Your task to perform on an android device: snooze an email in the gmail app Image 0: 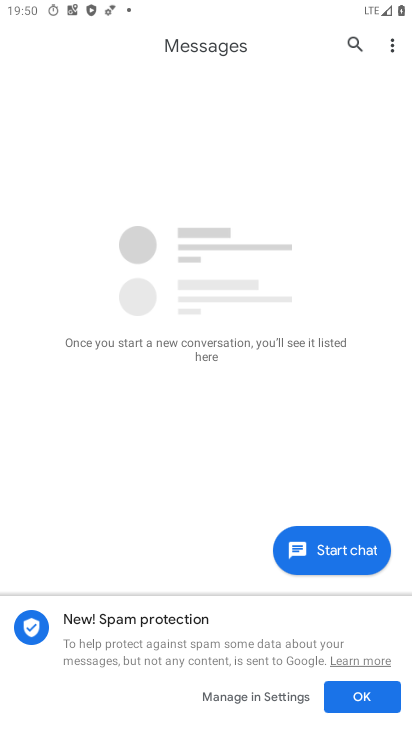
Step 0: press home button
Your task to perform on an android device: snooze an email in the gmail app Image 1: 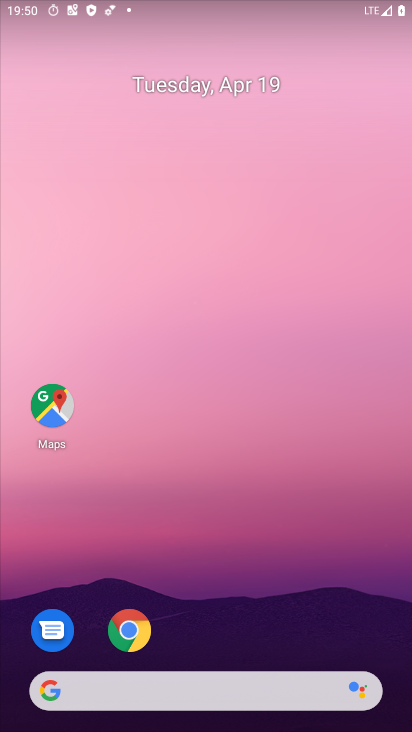
Step 1: drag from (190, 661) to (166, 94)
Your task to perform on an android device: snooze an email in the gmail app Image 2: 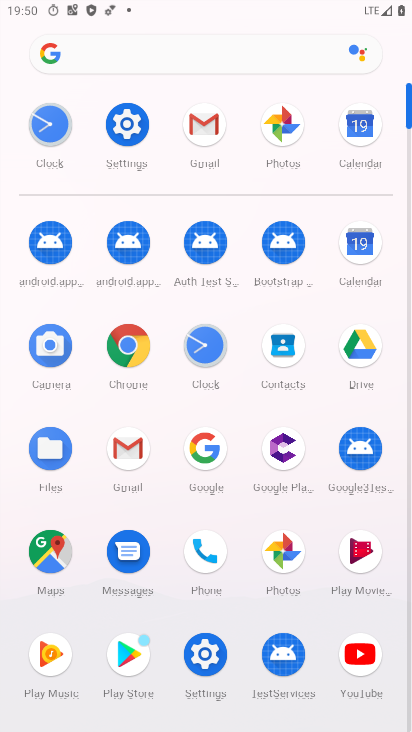
Step 2: click (117, 448)
Your task to perform on an android device: snooze an email in the gmail app Image 3: 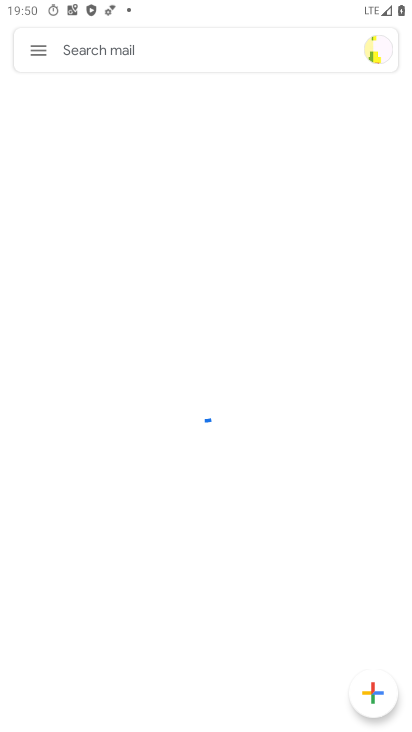
Step 3: click (44, 50)
Your task to perform on an android device: snooze an email in the gmail app Image 4: 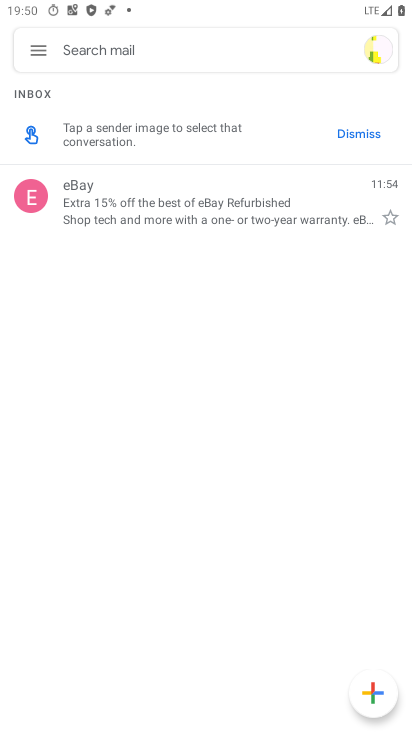
Step 4: click (38, 53)
Your task to perform on an android device: snooze an email in the gmail app Image 5: 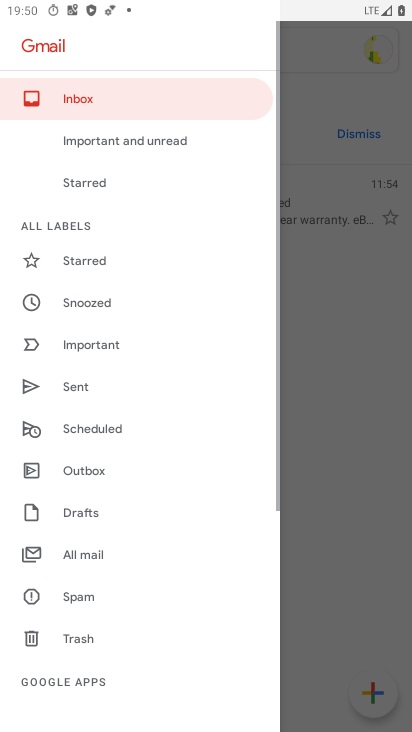
Step 5: click (345, 209)
Your task to perform on an android device: snooze an email in the gmail app Image 6: 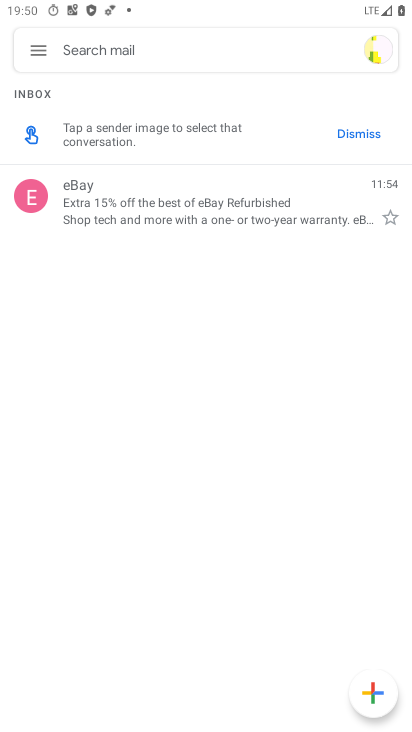
Step 6: click (345, 209)
Your task to perform on an android device: snooze an email in the gmail app Image 7: 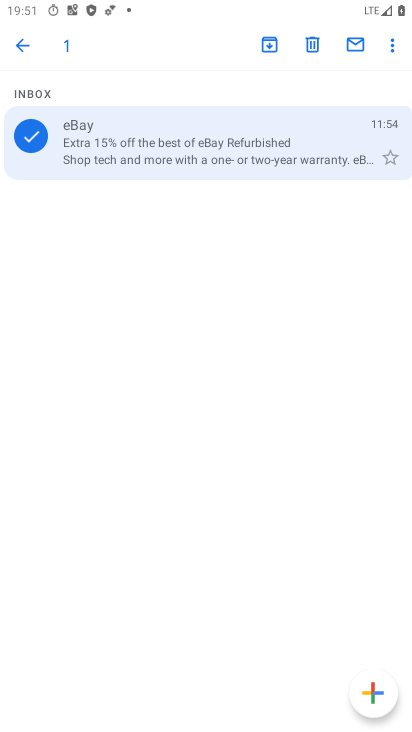
Step 7: click (396, 38)
Your task to perform on an android device: snooze an email in the gmail app Image 8: 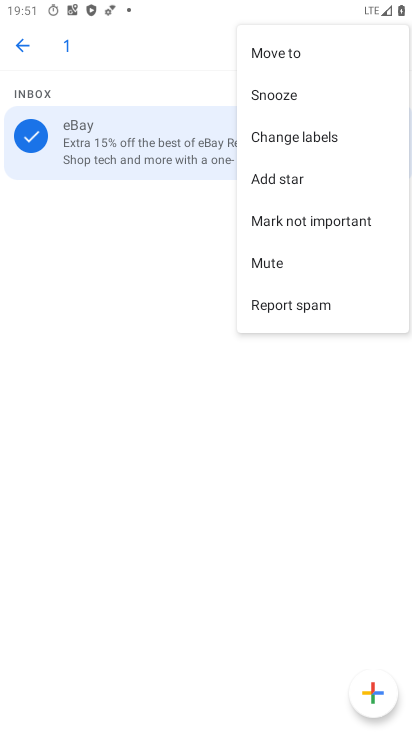
Step 8: click (283, 95)
Your task to perform on an android device: snooze an email in the gmail app Image 9: 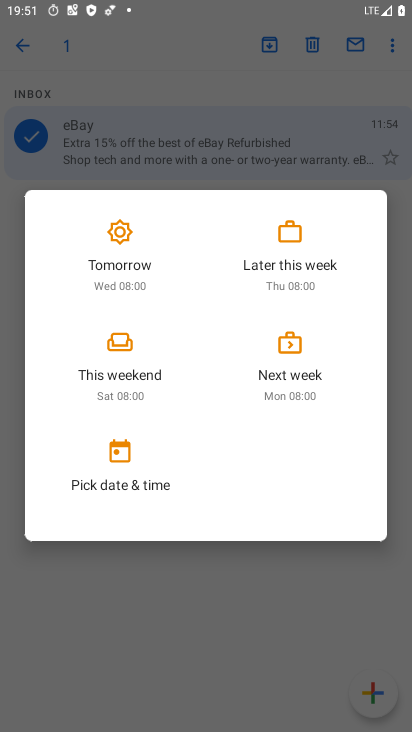
Step 9: click (110, 449)
Your task to perform on an android device: snooze an email in the gmail app Image 10: 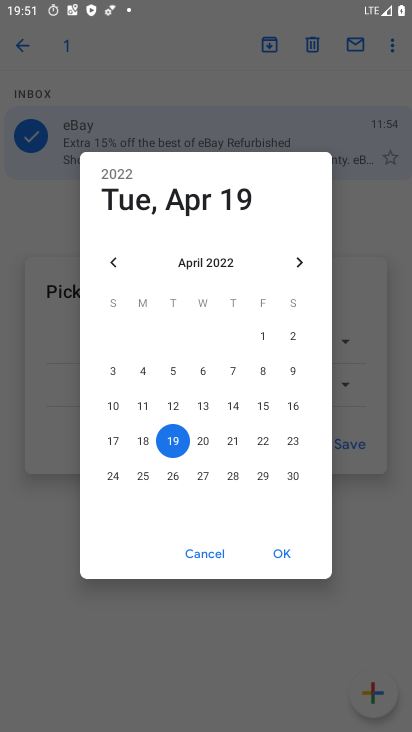
Step 10: click (279, 546)
Your task to perform on an android device: snooze an email in the gmail app Image 11: 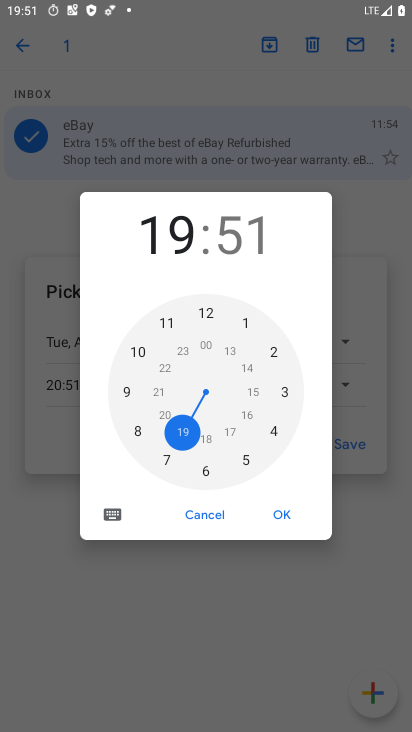
Step 11: click (270, 505)
Your task to perform on an android device: snooze an email in the gmail app Image 12: 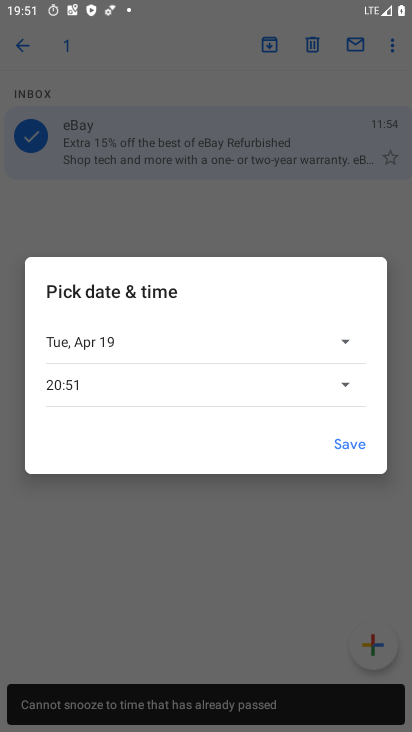
Step 12: click (346, 443)
Your task to perform on an android device: snooze an email in the gmail app Image 13: 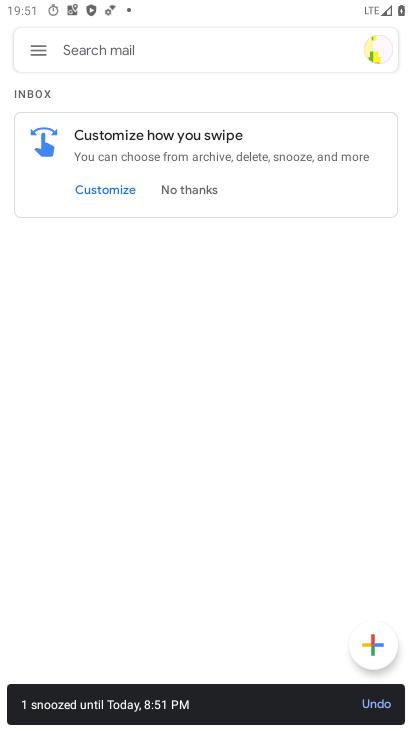
Step 13: task complete